Your task to perform on an android device: Open privacy settings Image 0: 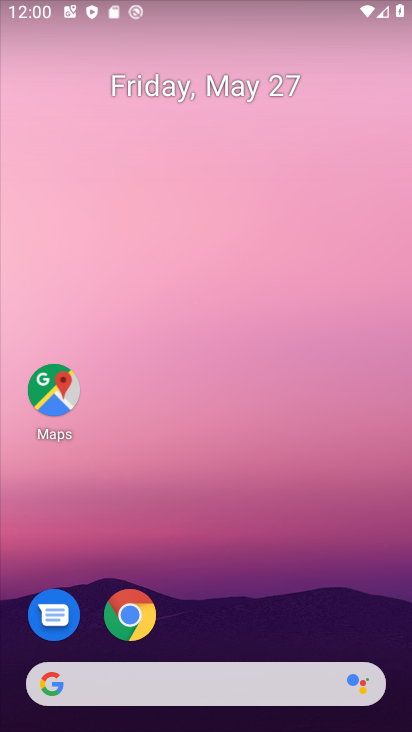
Step 0: drag from (113, 709) to (235, 68)
Your task to perform on an android device: Open privacy settings Image 1: 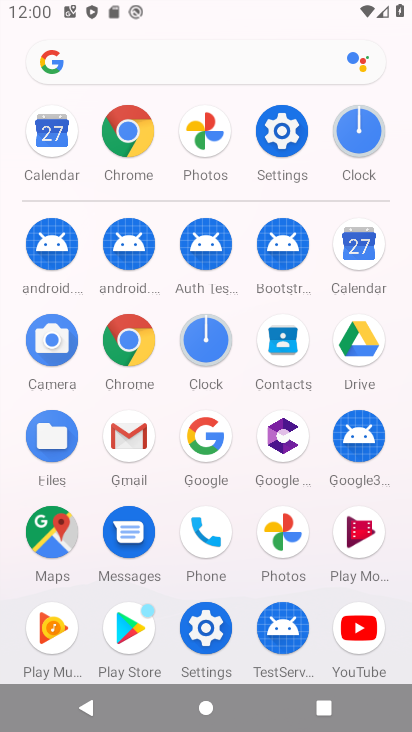
Step 1: click (292, 126)
Your task to perform on an android device: Open privacy settings Image 2: 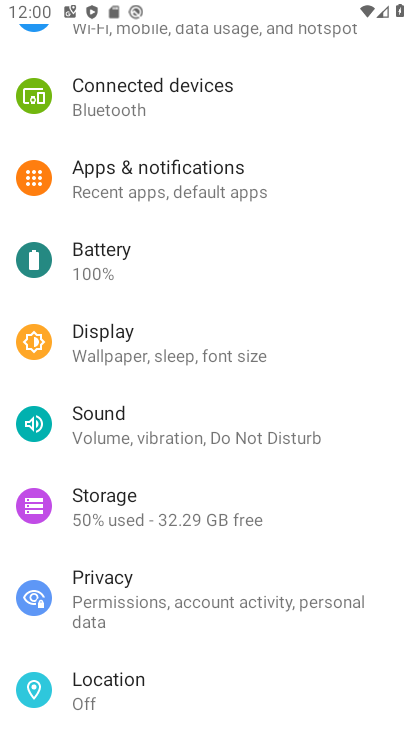
Step 2: drag from (323, 251) to (283, 729)
Your task to perform on an android device: Open privacy settings Image 3: 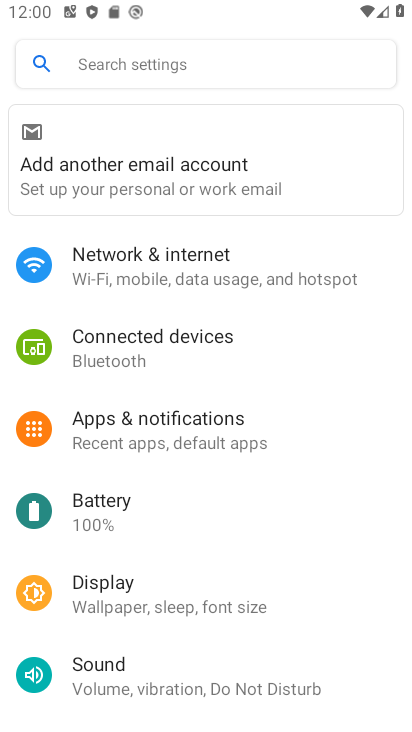
Step 3: drag from (248, 643) to (297, 281)
Your task to perform on an android device: Open privacy settings Image 4: 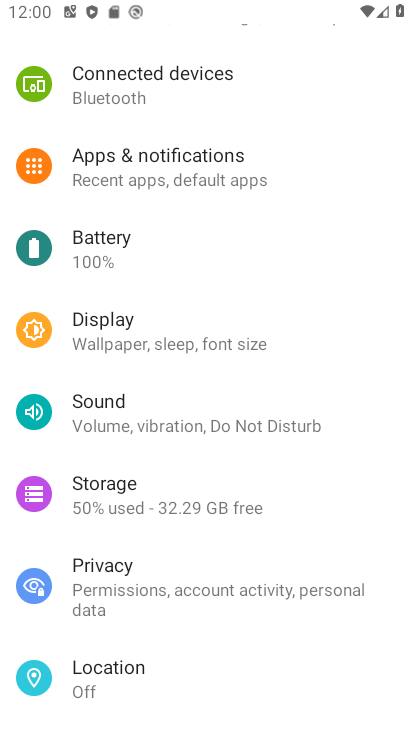
Step 4: click (180, 590)
Your task to perform on an android device: Open privacy settings Image 5: 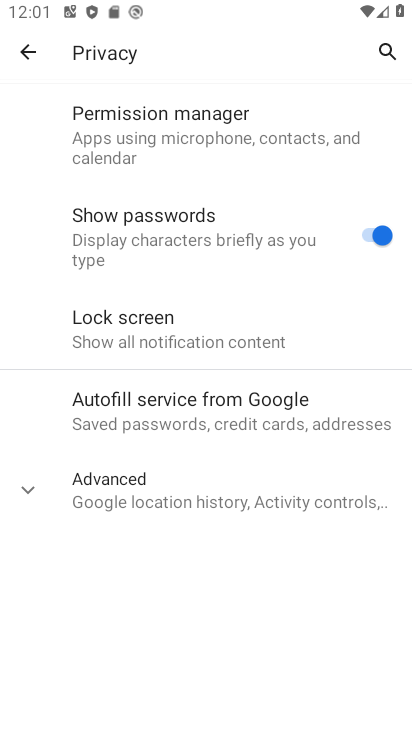
Step 5: task complete